Your task to perform on an android device: Go to Reddit.com Image 0: 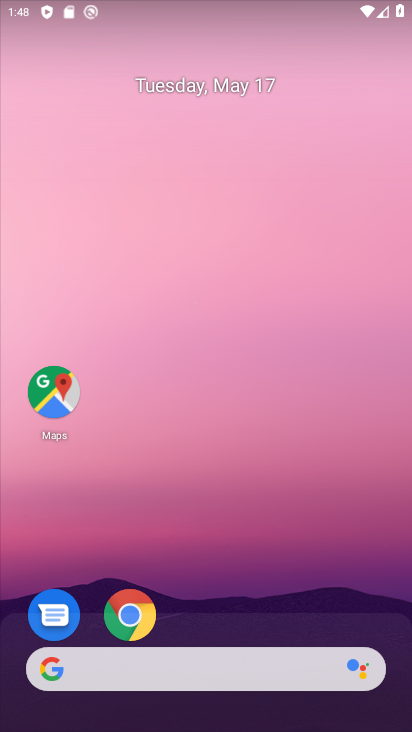
Step 0: click (143, 612)
Your task to perform on an android device: Go to Reddit.com Image 1: 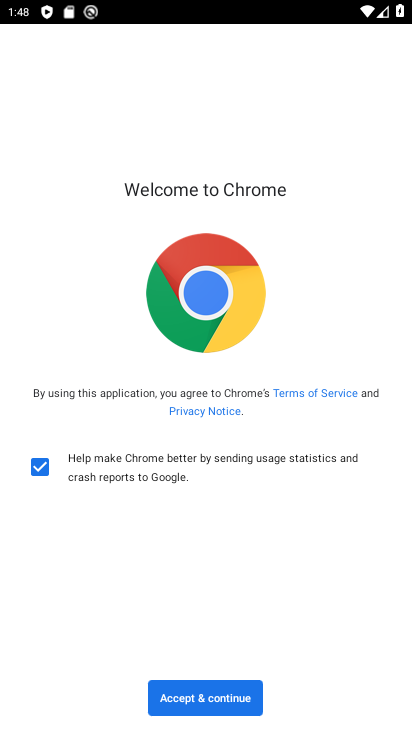
Step 1: click (236, 690)
Your task to perform on an android device: Go to Reddit.com Image 2: 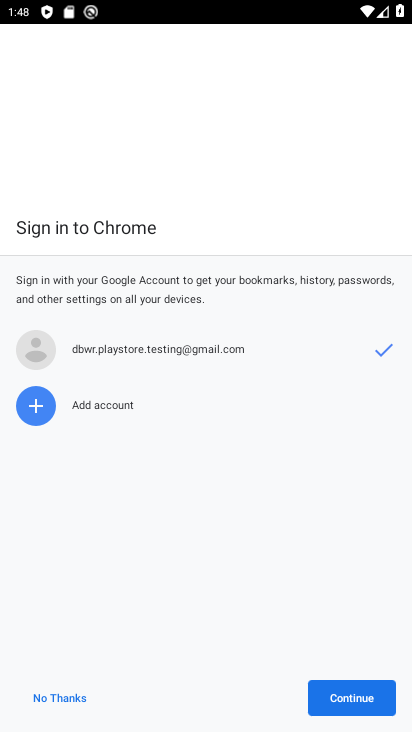
Step 2: click (358, 697)
Your task to perform on an android device: Go to Reddit.com Image 3: 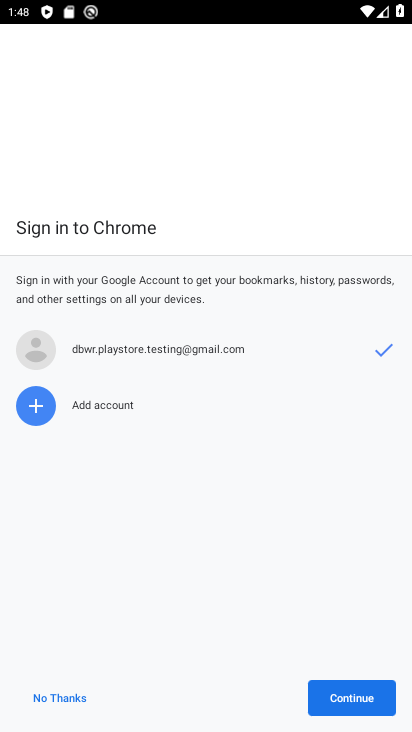
Step 3: click (358, 697)
Your task to perform on an android device: Go to Reddit.com Image 4: 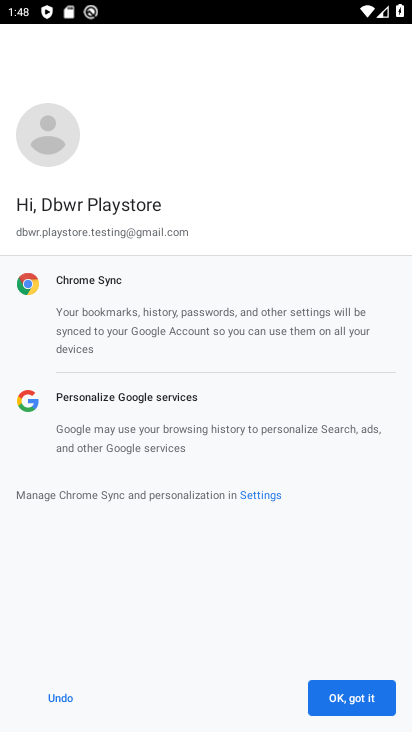
Step 4: click (357, 692)
Your task to perform on an android device: Go to Reddit.com Image 5: 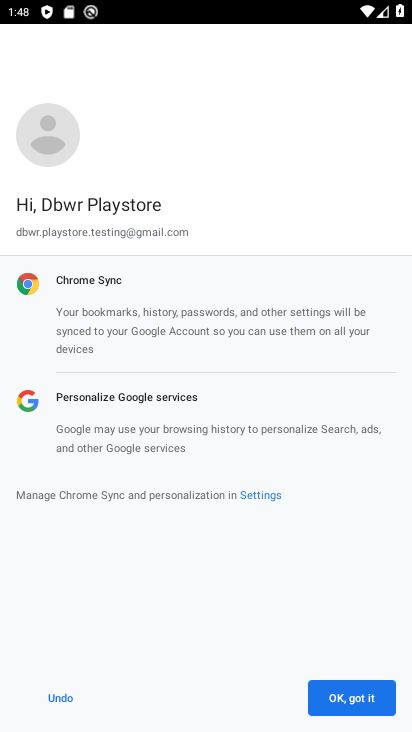
Step 5: click (352, 689)
Your task to perform on an android device: Go to Reddit.com Image 6: 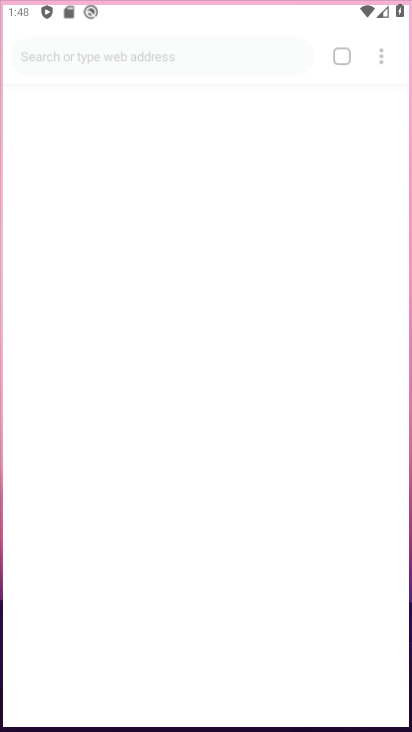
Step 6: click (325, 691)
Your task to perform on an android device: Go to Reddit.com Image 7: 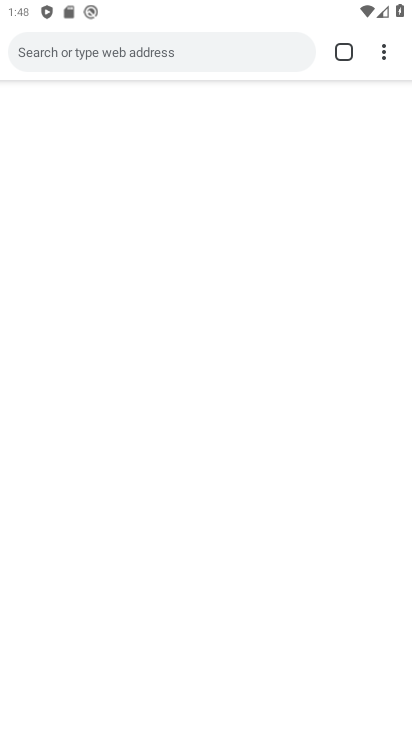
Step 7: click (325, 691)
Your task to perform on an android device: Go to Reddit.com Image 8: 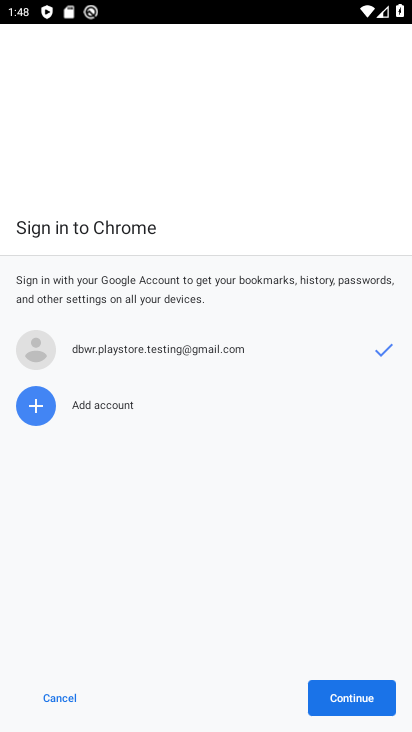
Step 8: click (279, 249)
Your task to perform on an android device: Go to Reddit.com Image 9: 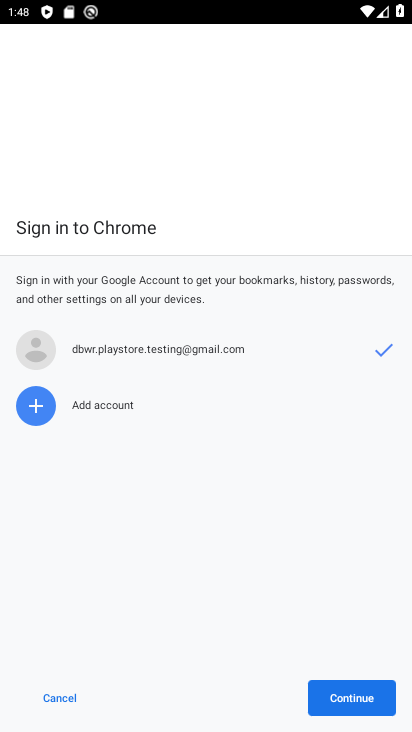
Step 9: click (366, 693)
Your task to perform on an android device: Go to Reddit.com Image 10: 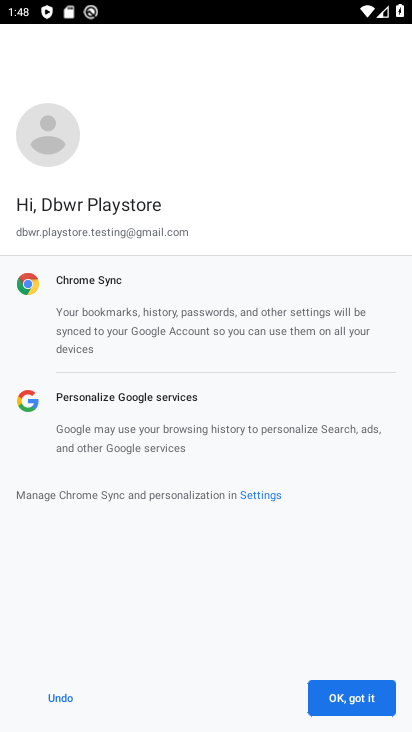
Step 10: click (371, 712)
Your task to perform on an android device: Go to Reddit.com Image 11: 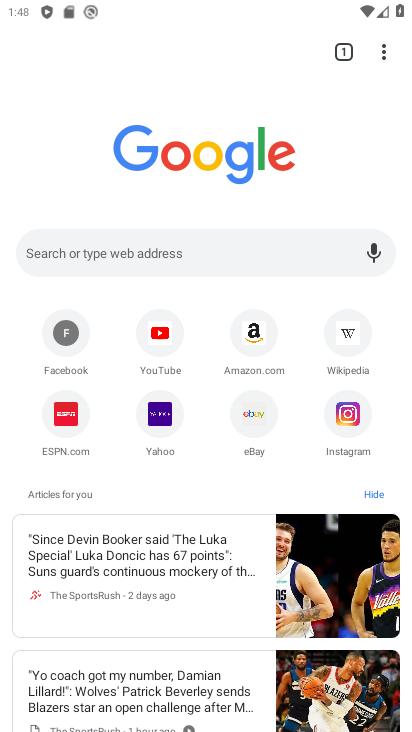
Step 11: click (157, 255)
Your task to perform on an android device: Go to Reddit.com Image 12: 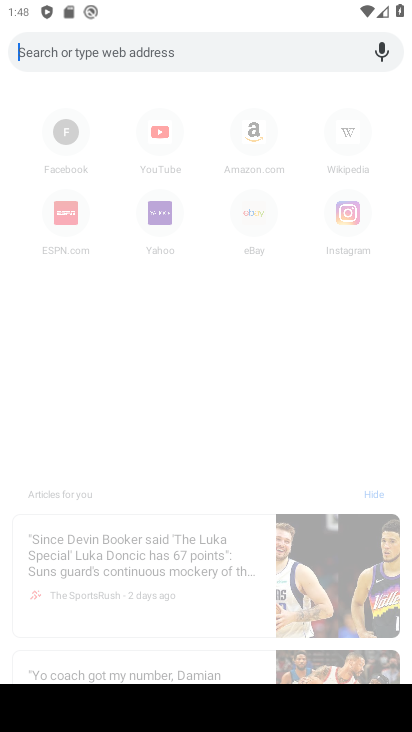
Step 12: type " Reddit.com"
Your task to perform on an android device: Go to Reddit.com Image 13: 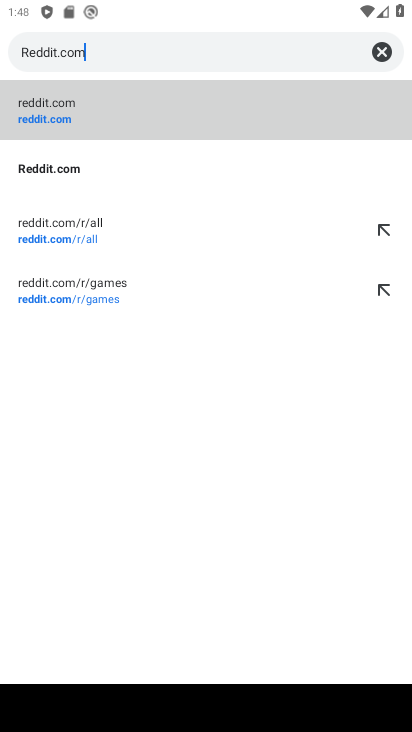
Step 13: click (59, 116)
Your task to perform on an android device: Go to Reddit.com Image 14: 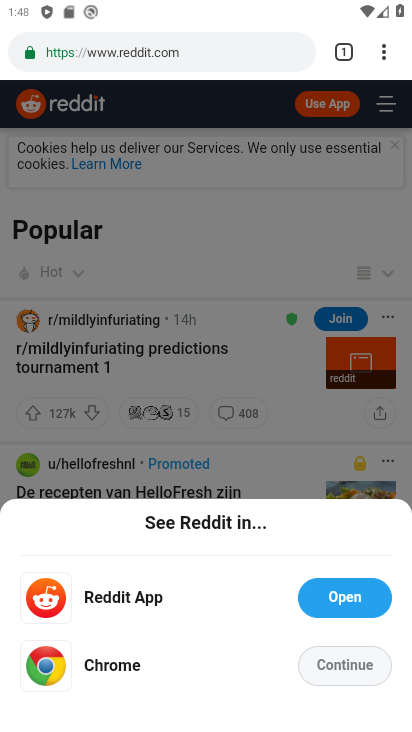
Step 14: task complete